Your task to perform on an android device: change notifications settings Image 0: 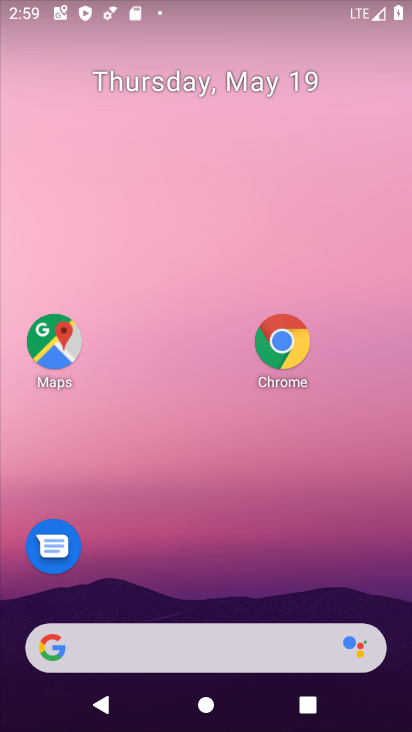
Step 0: press home button
Your task to perform on an android device: change notifications settings Image 1: 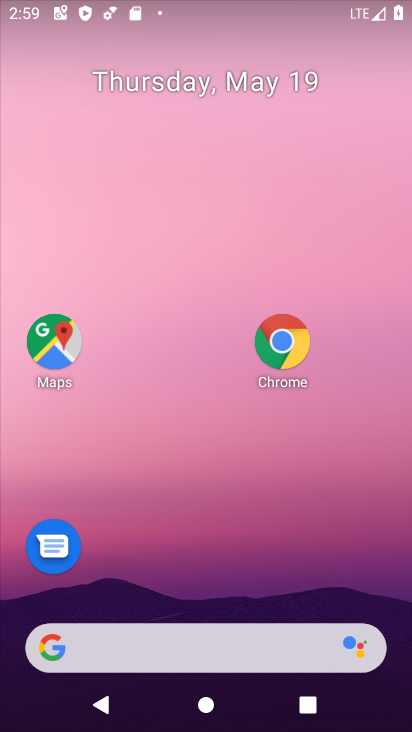
Step 1: drag from (177, 578) to (288, 165)
Your task to perform on an android device: change notifications settings Image 2: 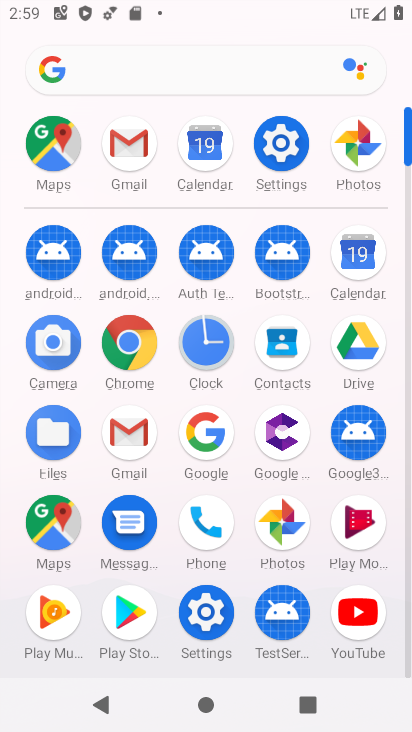
Step 2: click (280, 156)
Your task to perform on an android device: change notifications settings Image 3: 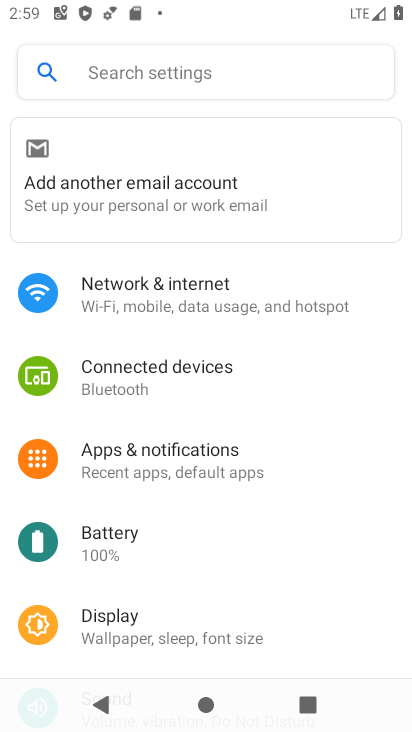
Step 3: click (207, 458)
Your task to perform on an android device: change notifications settings Image 4: 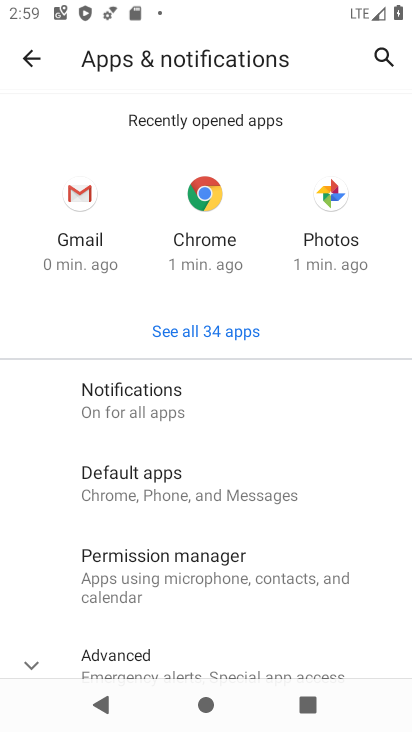
Step 4: click (163, 406)
Your task to perform on an android device: change notifications settings Image 5: 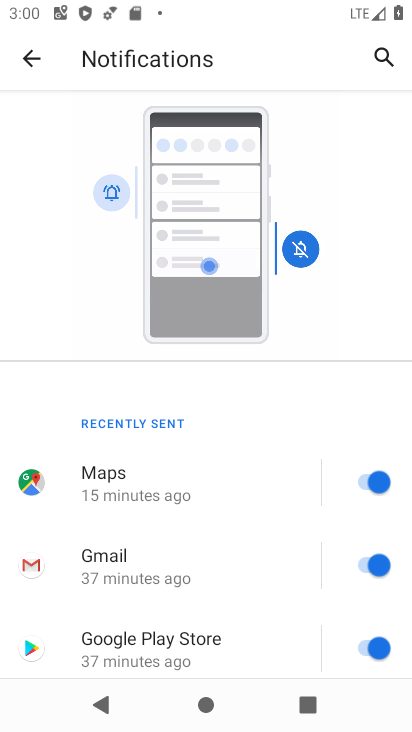
Step 5: task complete